Your task to perform on an android device: open chrome and create a bookmark for the current page Image 0: 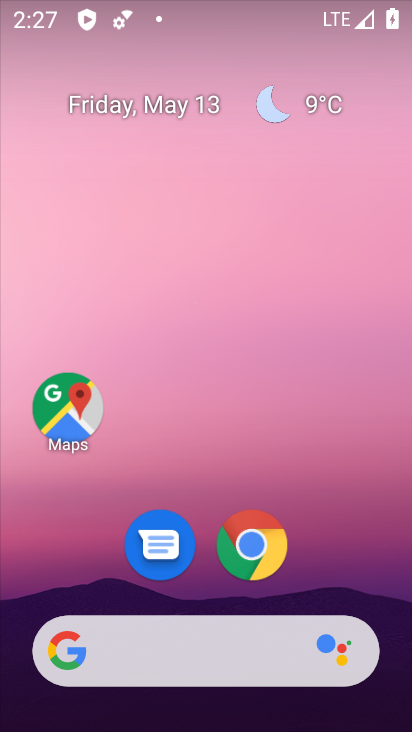
Step 0: click (235, 536)
Your task to perform on an android device: open chrome and create a bookmark for the current page Image 1: 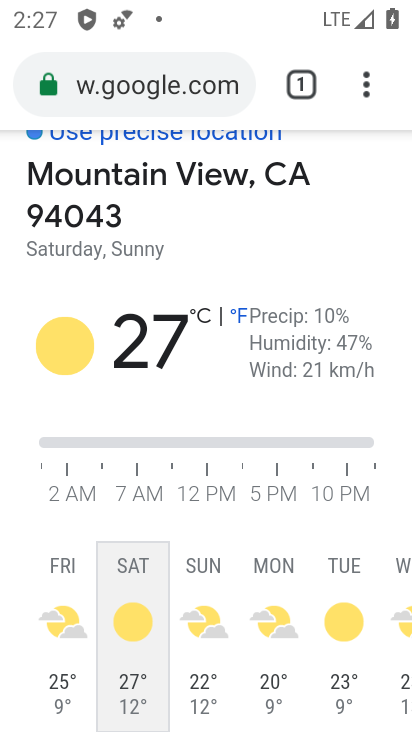
Step 1: press home button
Your task to perform on an android device: open chrome and create a bookmark for the current page Image 2: 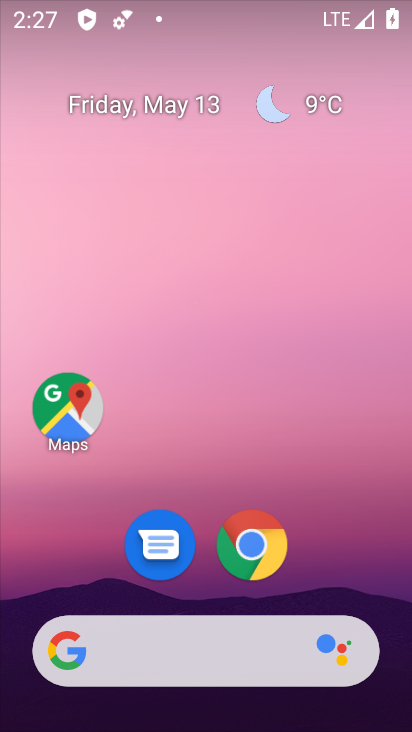
Step 2: click (271, 554)
Your task to perform on an android device: open chrome and create a bookmark for the current page Image 3: 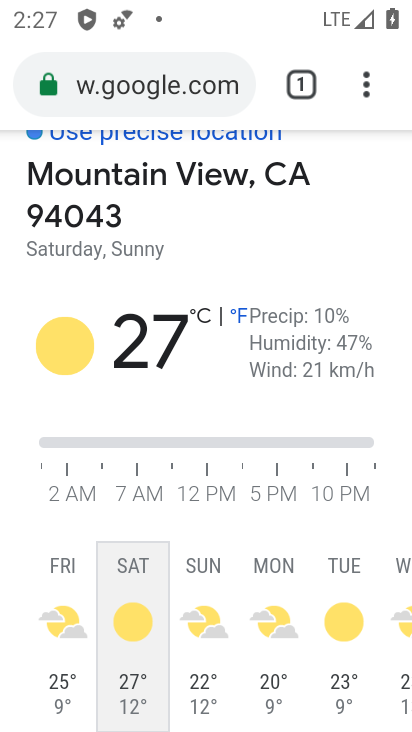
Step 3: task complete